Your task to perform on an android device: clear all cookies in the chrome app Image 0: 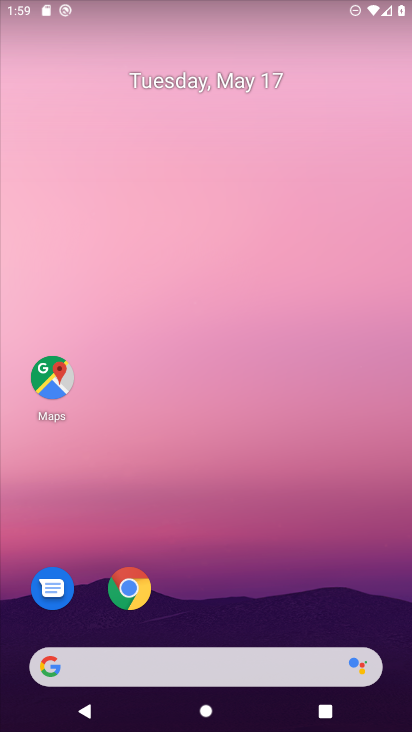
Step 0: click (136, 581)
Your task to perform on an android device: clear all cookies in the chrome app Image 1: 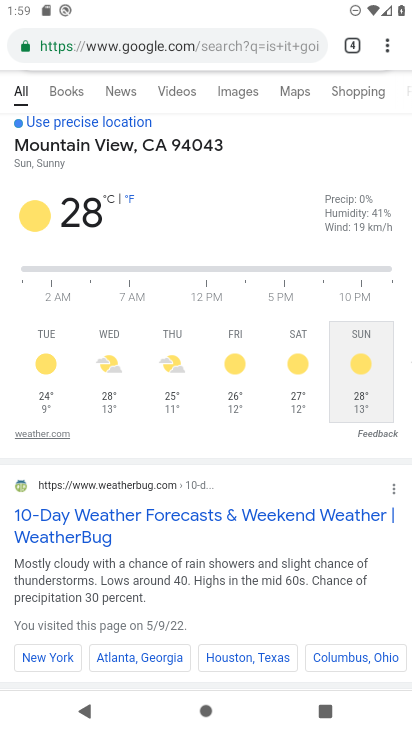
Step 1: click (392, 42)
Your task to perform on an android device: clear all cookies in the chrome app Image 2: 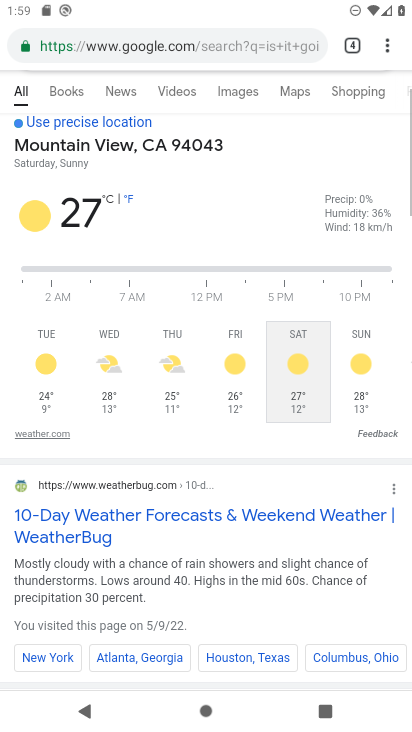
Step 2: click (385, 46)
Your task to perform on an android device: clear all cookies in the chrome app Image 3: 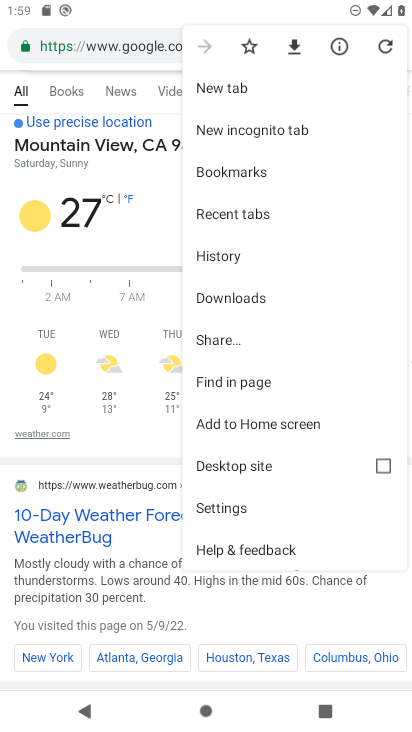
Step 3: click (211, 253)
Your task to perform on an android device: clear all cookies in the chrome app Image 4: 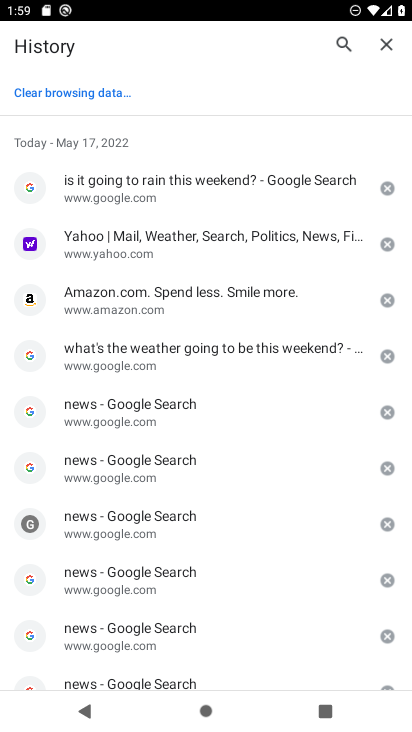
Step 4: click (84, 96)
Your task to perform on an android device: clear all cookies in the chrome app Image 5: 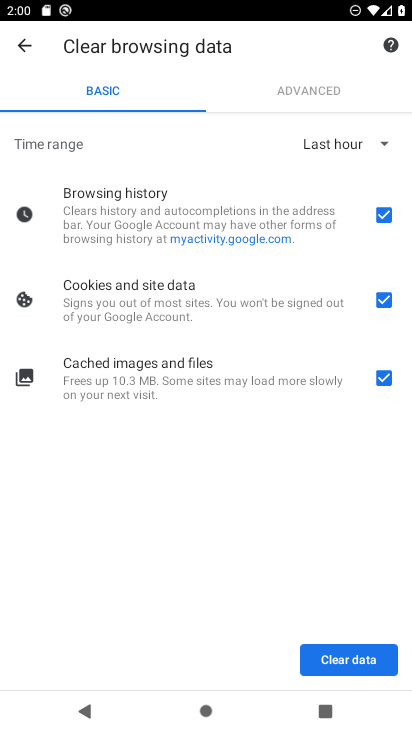
Step 5: click (352, 654)
Your task to perform on an android device: clear all cookies in the chrome app Image 6: 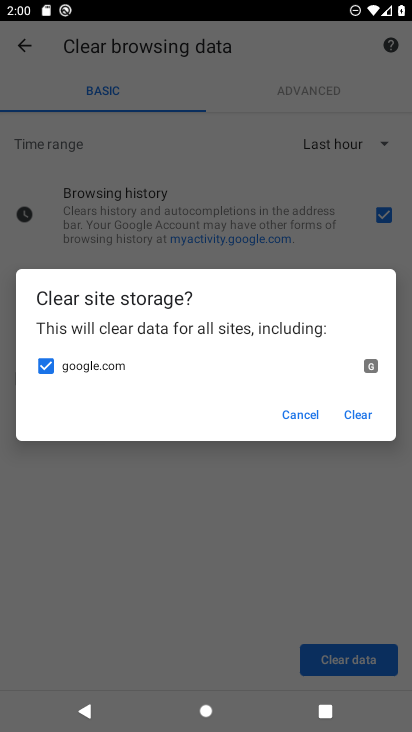
Step 6: click (355, 421)
Your task to perform on an android device: clear all cookies in the chrome app Image 7: 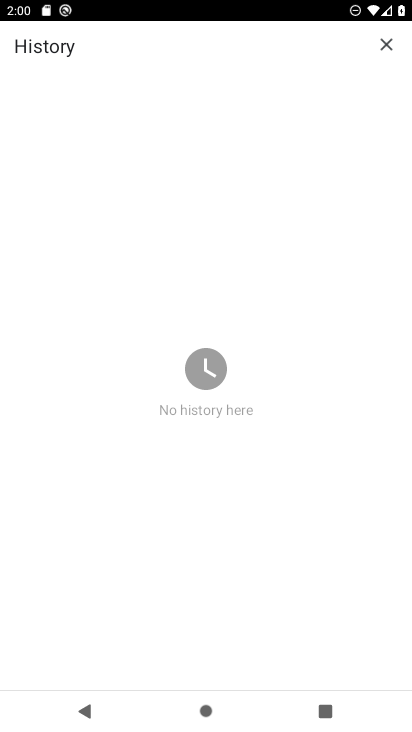
Step 7: task complete